Your task to perform on an android device: Open eBay Image 0: 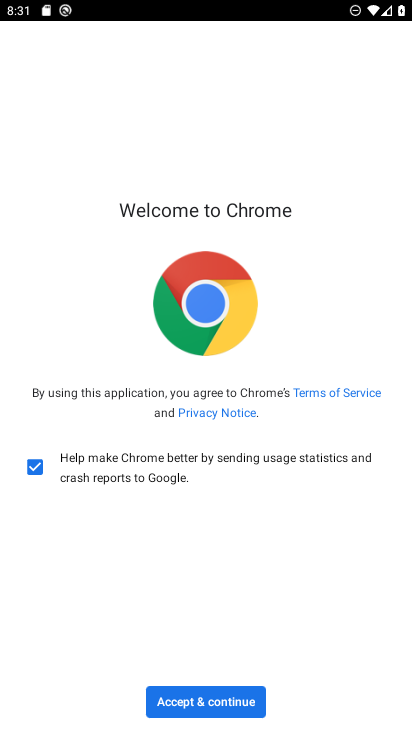
Step 0: press home button
Your task to perform on an android device: Open eBay Image 1: 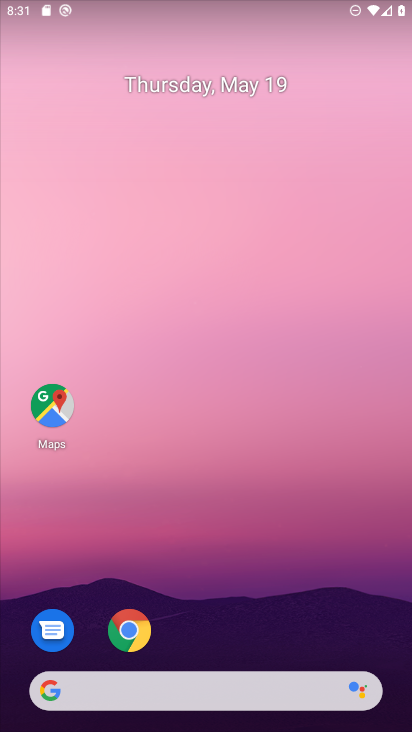
Step 1: click (247, 686)
Your task to perform on an android device: Open eBay Image 2: 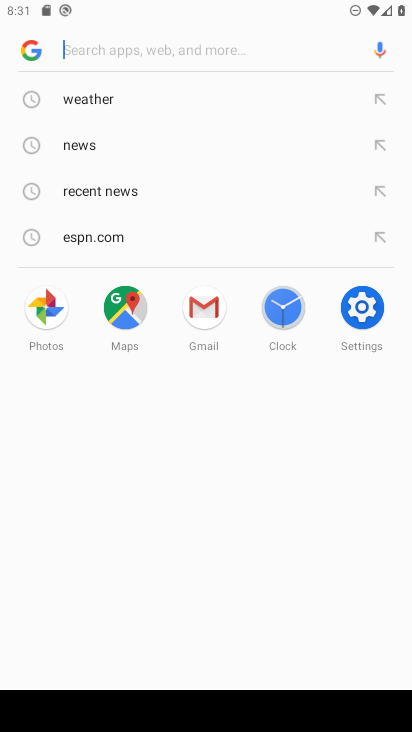
Step 2: type "ebay"
Your task to perform on an android device: Open eBay Image 3: 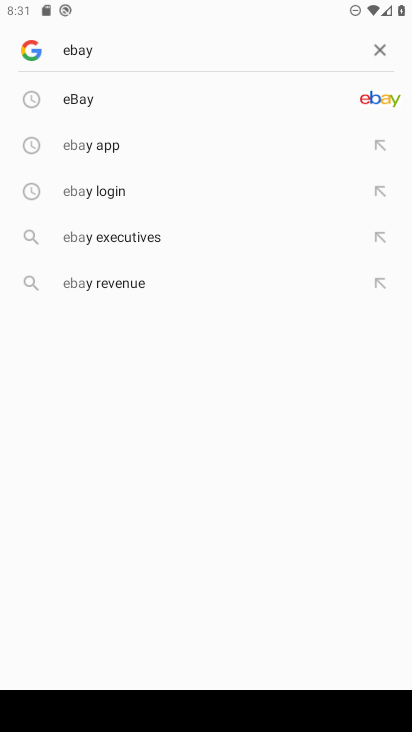
Step 3: click (87, 89)
Your task to perform on an android device: Open eBay Image 4: 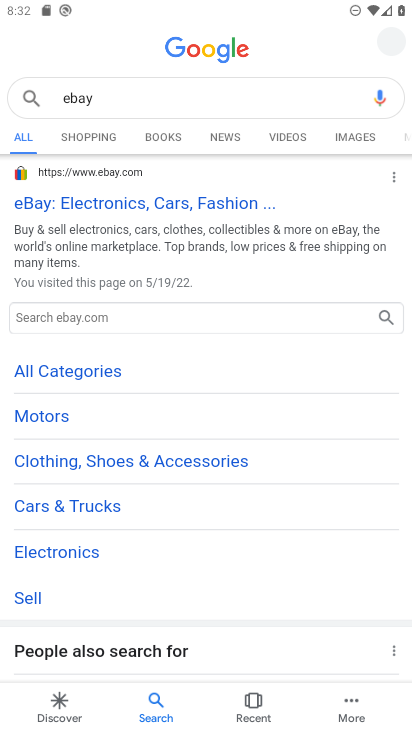
Step 4: click (158, 181)
Your task to perform on an android device: Open eBay Image 5: 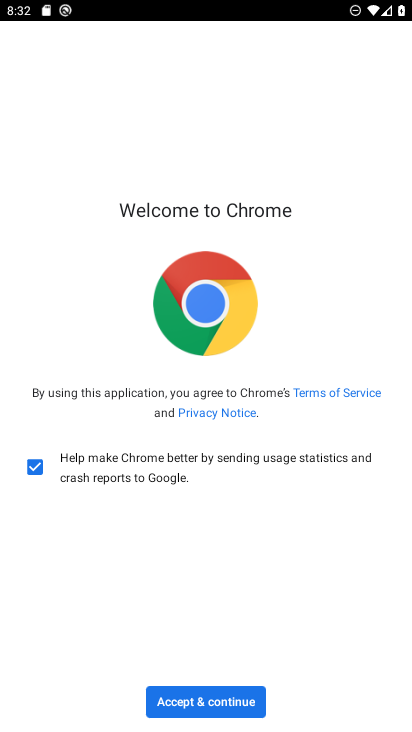
Step 5: click (163, 688)
Your task to perform on an android device: Open eBay Image 6: 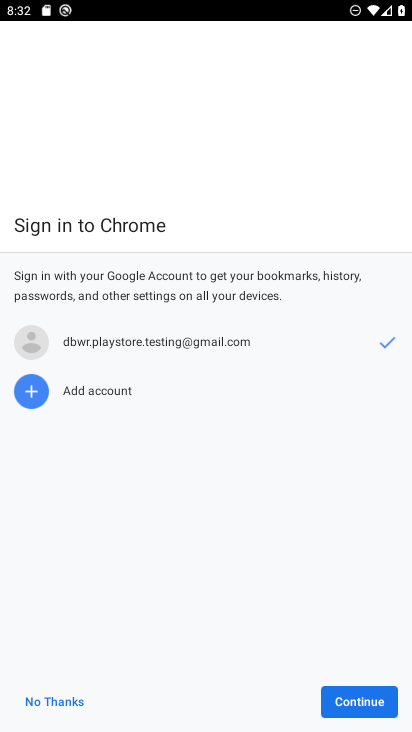
Step 6: click (373, 701)
Your task to perform on an android device: Open eBay Image 7: 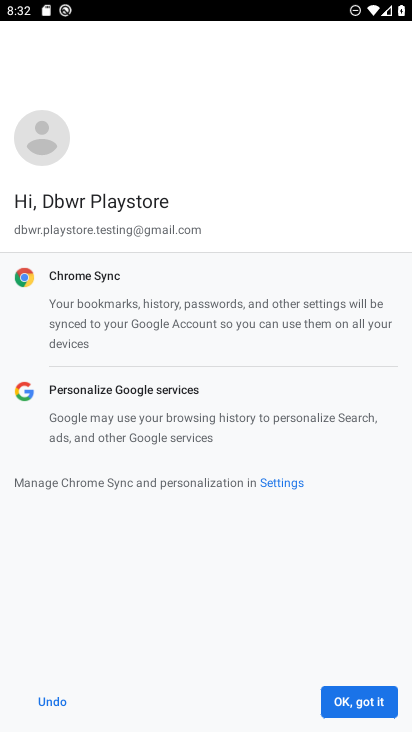
Step 7: click (357, 695)
Your task to perform on an android device: Open eBay Image 8: 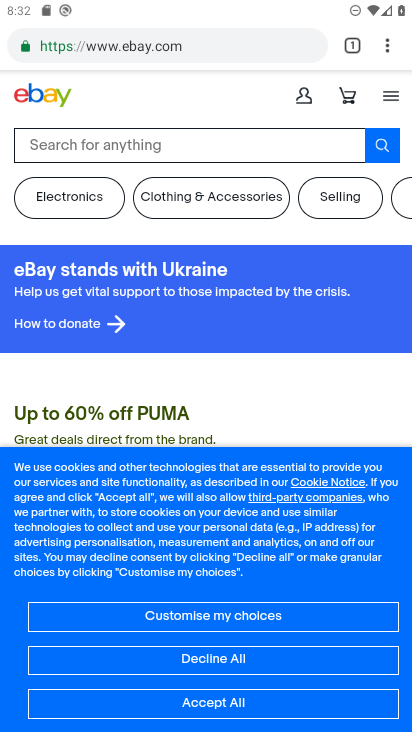
Step 8: task complete